Your task to perform on an android device: Open Chrome and go to settings Image 0: 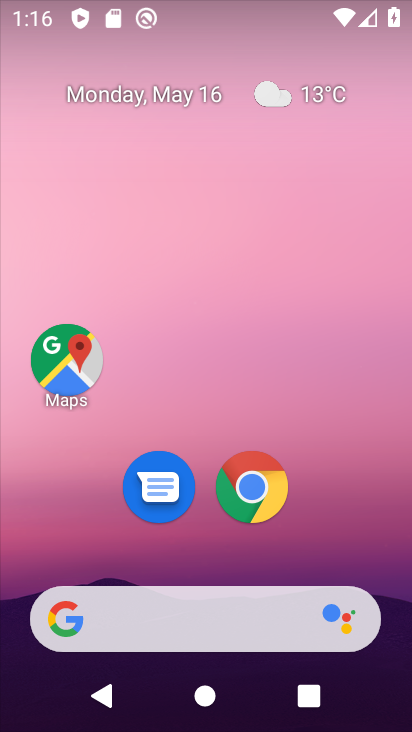
Step 0: click (257, 472)
Your task to perform on an android device: Open Chrome and go to settings Image 1: 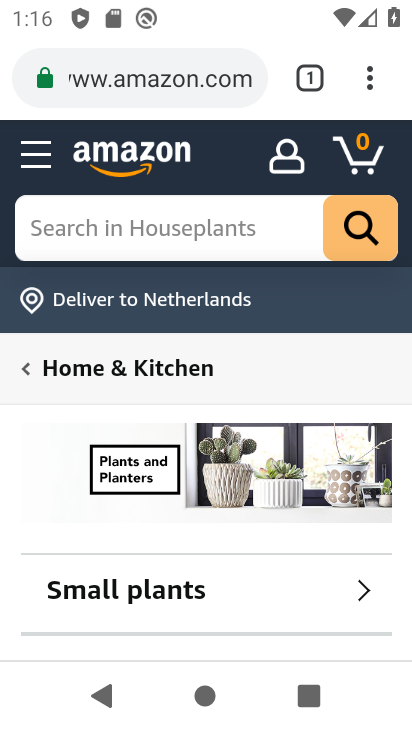
Step 1: click (392, 77)
Your task to perform on an android device: Open Chrome and go to settings Image 2: 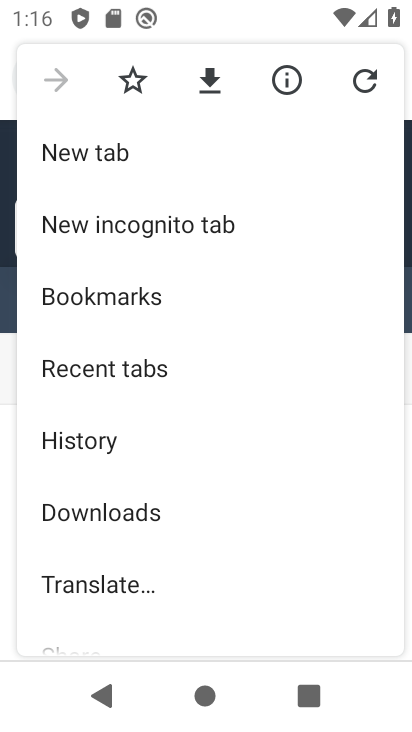
Step 2: drag from (117, 616) to (132, 172)
Your task to perform on an android device: Open Chrome and go to settings Image 3: 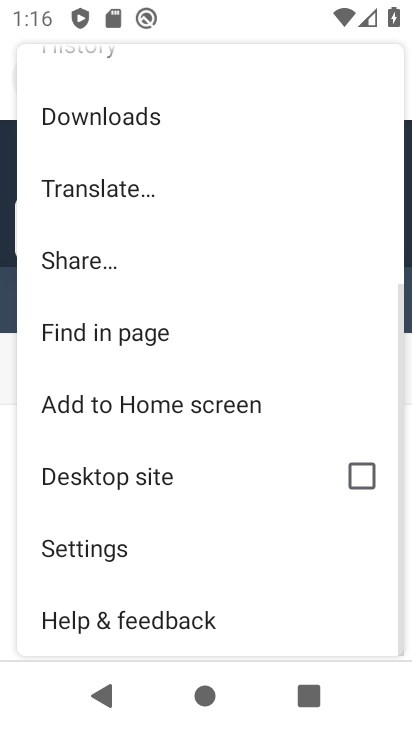
Step 3: drag from (171, 616) to (238, 47)
Your task to perform on an android device: Open Chrome and go to settings Image 4: 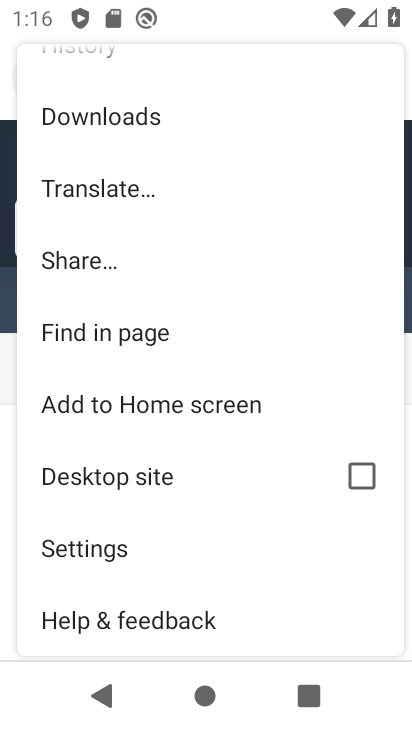
Step 4: click (171, 538)
Your task to perform on an android device: Open Chrome and go to settings Image 5: 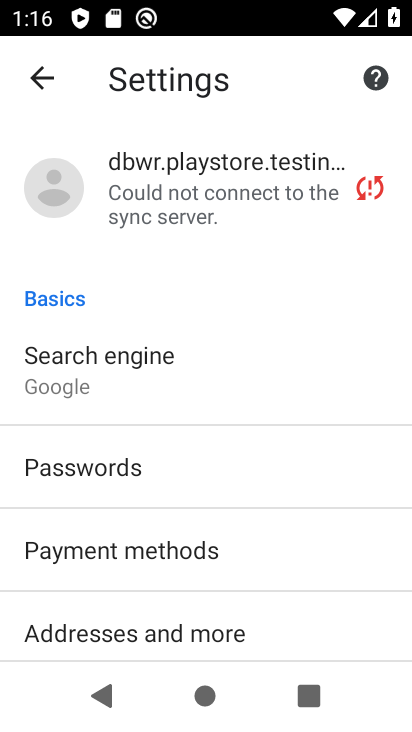
Step 5: task complete